Your task to perform on an android device: What's on my calendar tomorrow? Image 0: 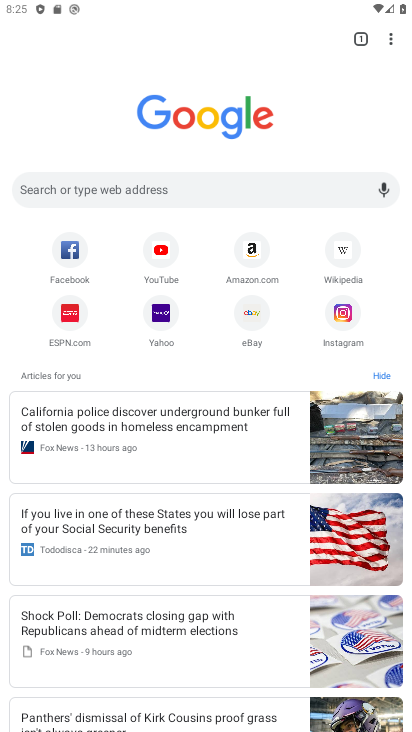
Step 0: press home button
Your task to perform on an android device: What's on my calendar tomorrow? Image 1: 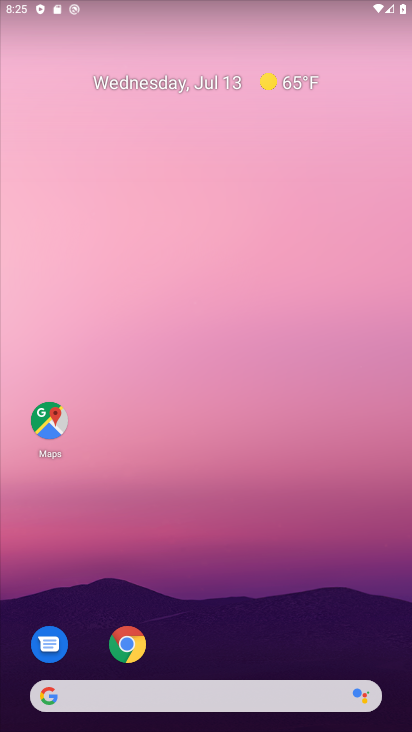
Step 1: drag from (279, 662) to (129, 109)
Your task to perform on an android device: What's on my calendar tomorrow? Image 2: 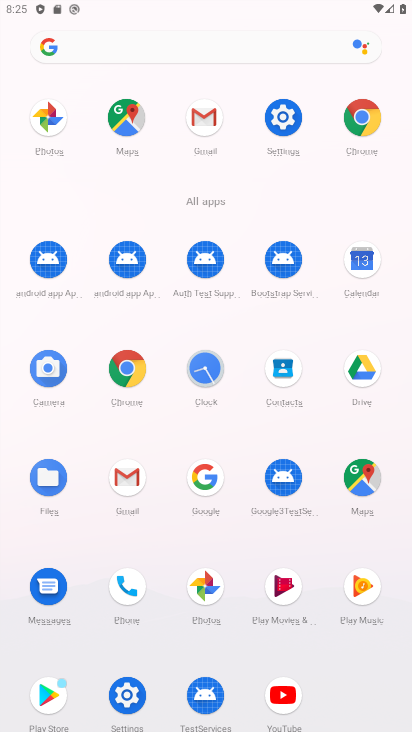
Step 2: click (355, 267)
Your task to perform on an android device: What's on my calendar tomorrow? Image 3: 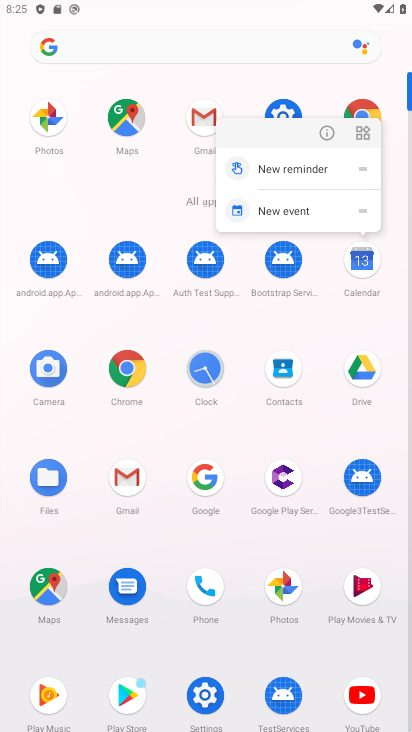
Step 3: click (355, 267)
Your task to perform on an android device: What's on my calendar tomorrow? Image 4: 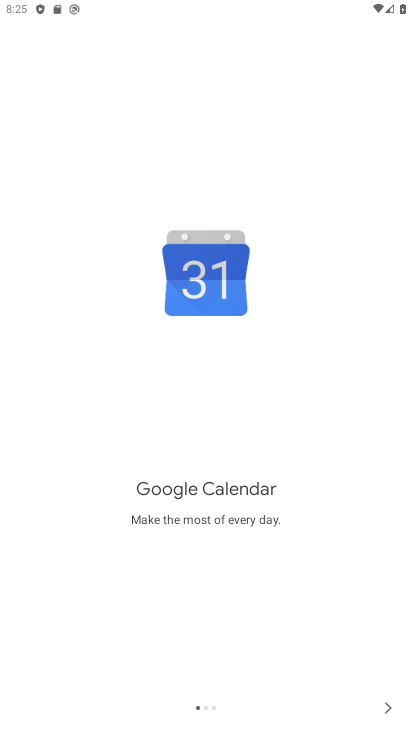
Step 4: click (393, 712)
Your task to perform on an android device: What's on my calendar tomorrow? Image 5: 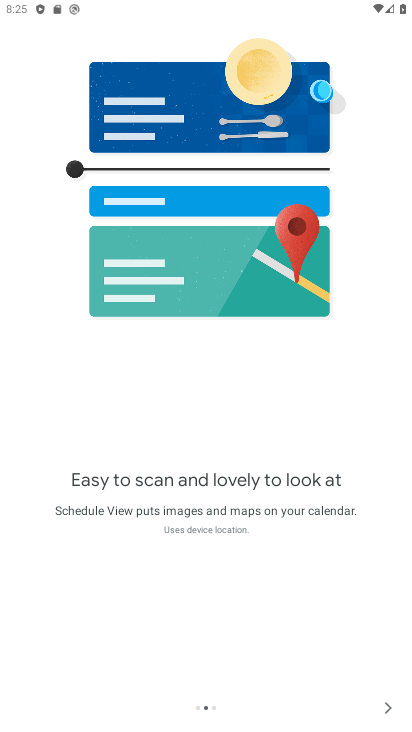
Step 5: click (392, 699)
Your task to perform on an android device: What's on my calendar tomorrow? Image 6: 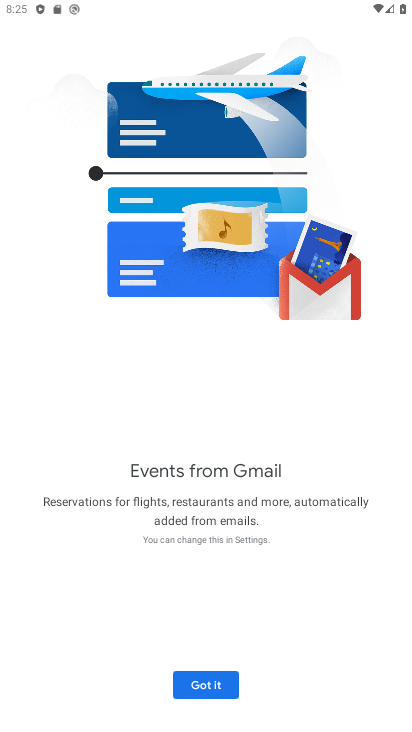
Step 6: click (178, 675)
Your task to perform on an android device: What's on my calendar tomorrow? Image 7: 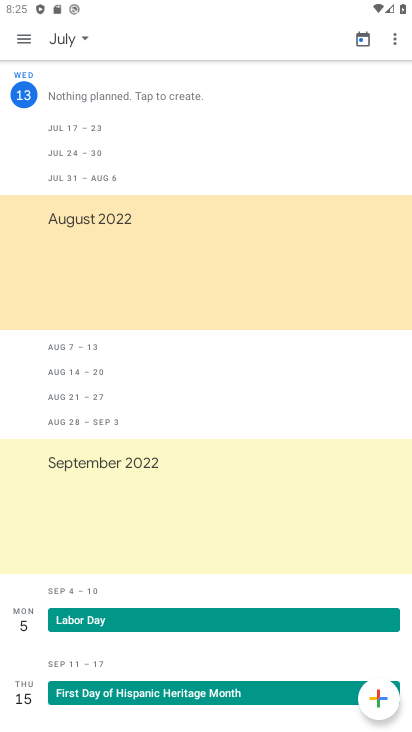
Step 7: click (69, 35)
Your task to perform on an android device: What's on my calendar tomorrow? Image 8: 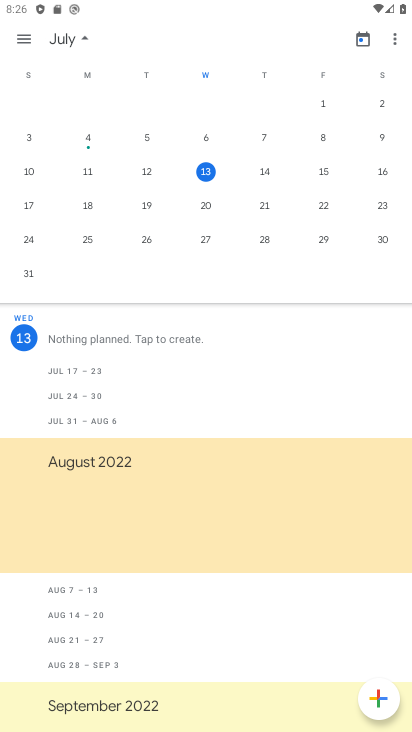
Step 8: click (265, 178)
Your task to perform on an android device: What's on my calendar tomorrow? Image 9: 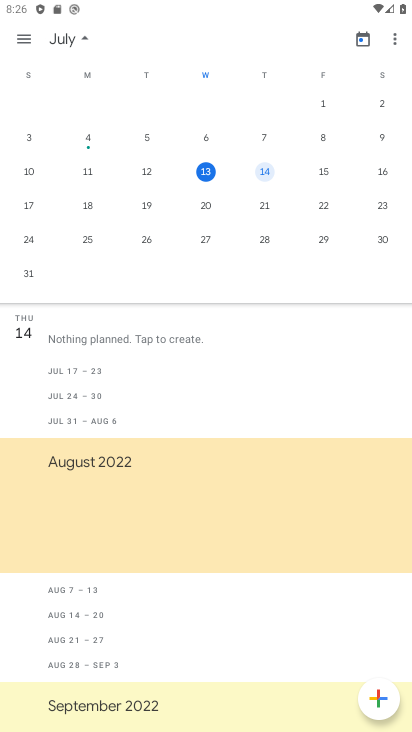
Step 9: task complete